Your task to perform on an android device: toggle translation in the chrome app Image 0: 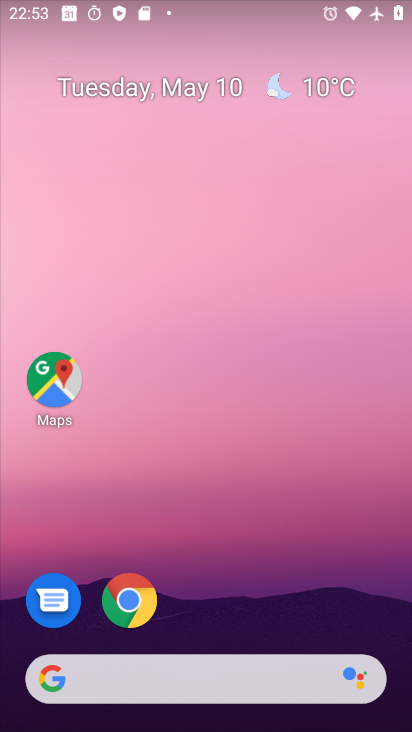
Step 0: drag from (304, 538) to (361, 116)
Your task to perform on an android device: toggle translation in the chrome app Image 1: 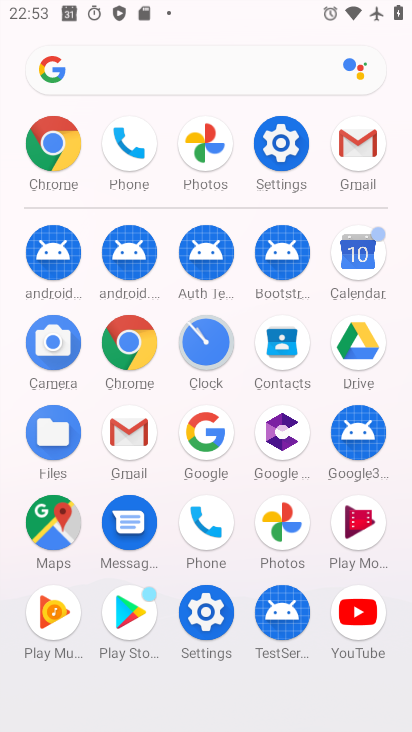
Step 1: click (41, 126)
Your task to perform on an android device: toggle translation in the chrome app Image 2: 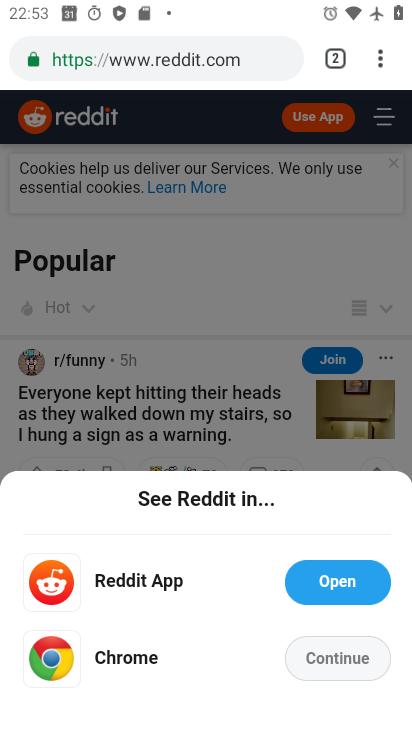
Step 2: drag from (386, 60) to (180, 632)
Your task to perform on an android device: toggle translation in the chrome app Image 3: 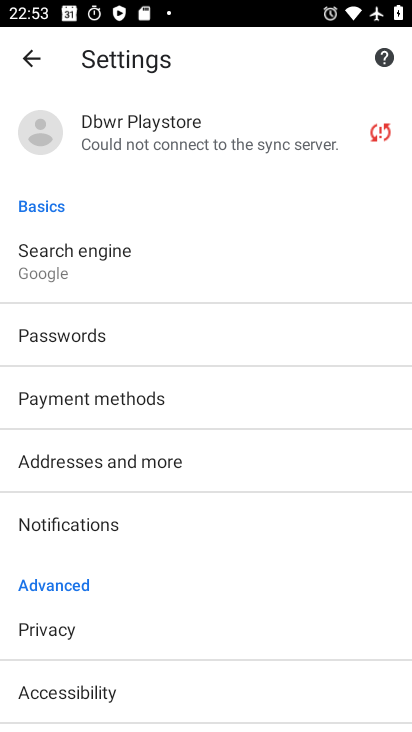
Step 3: drag from (202, 600) to (215, 242)
Your task to perform on an android device: toggle translation in the chrome app Image 4: 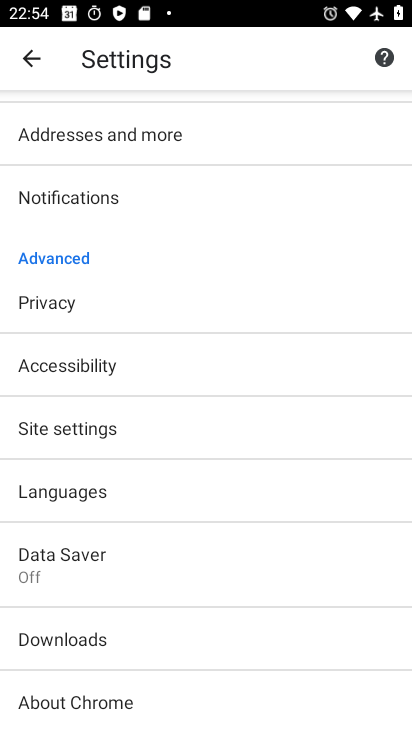
Step 4: drag from (151, 619) to (157, 375)
Your task to perform on an android device: toggle translation in the chrome app Image 5: 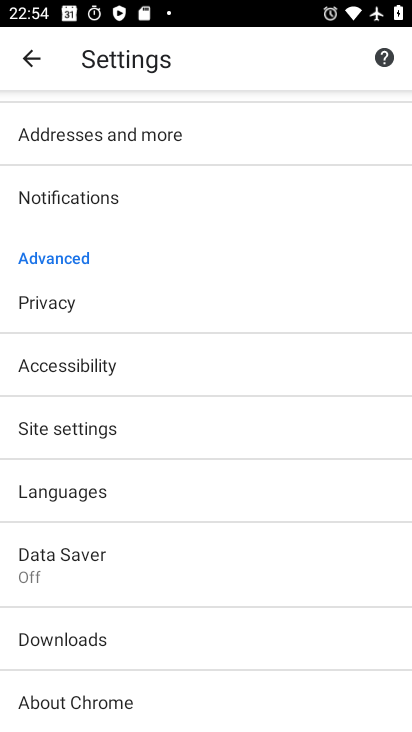
Step 5: click (69, 490)
Your task to perform on an android device: toggle translation in the chrome app Image 6: 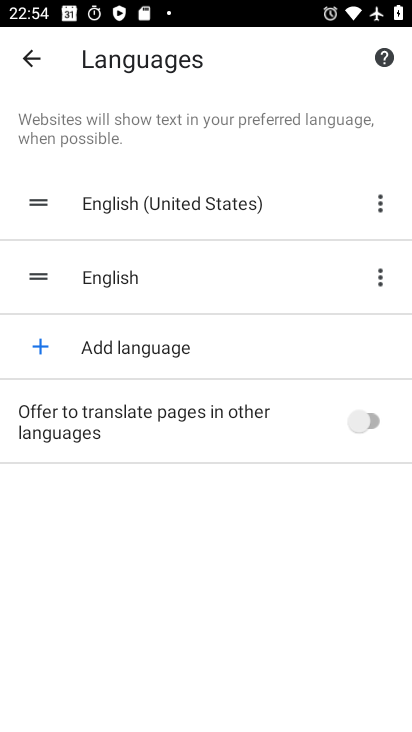
Step 6: click (358, 432)
Your task to perform on an android device: toggle translation in the chrome app Image 7: 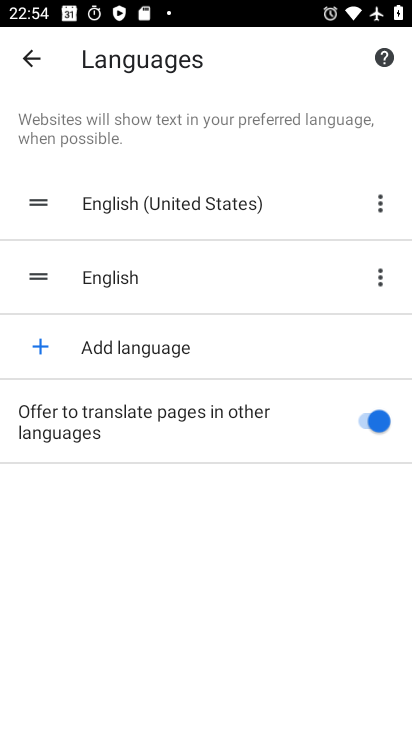
Step 7: task complete